Your task to perform on an android device: Open Android settings Image 0: 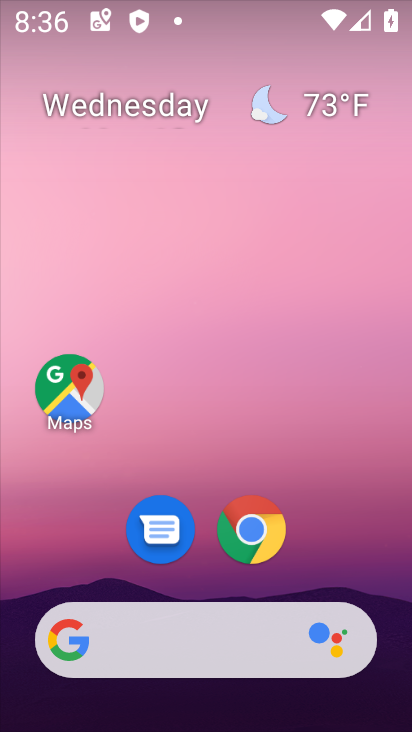
Step 0: drag from (358, 546) to (355, 246)
Your task to perform on an android device: Open Android settings Image 1: 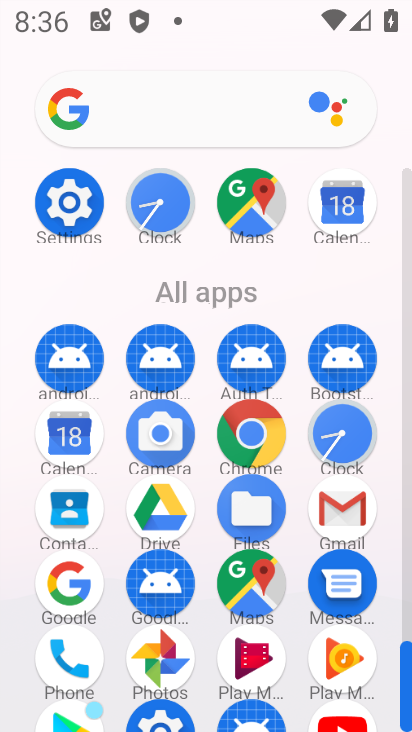
Step 1: click (87, 224)
Your task to perform on an android device: Open Android settings Image 2: 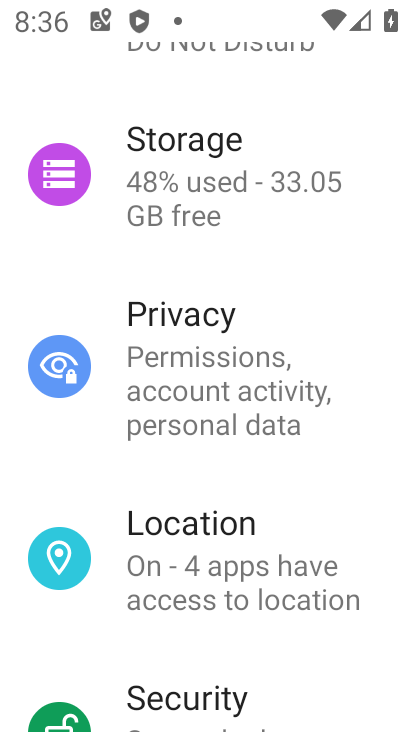
Step 2: drag from (351, 494) to (360, 376)
Your task to perform on an android device: Open Android settings Image 3: 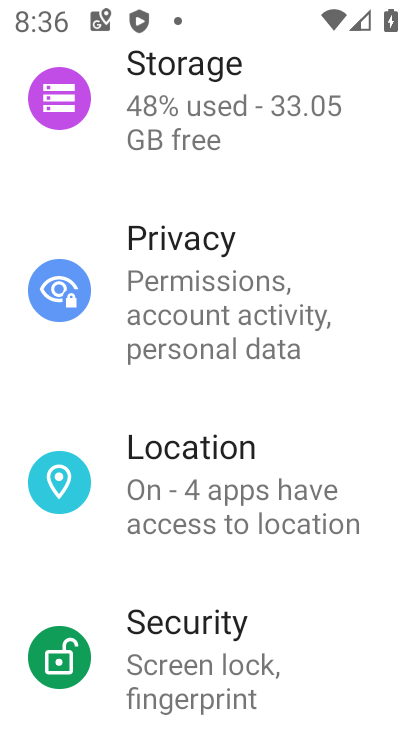
Step 3: drag from (358, 472) to (359, 339)
Your task to perform on an android device: Open Android settings Image 4: 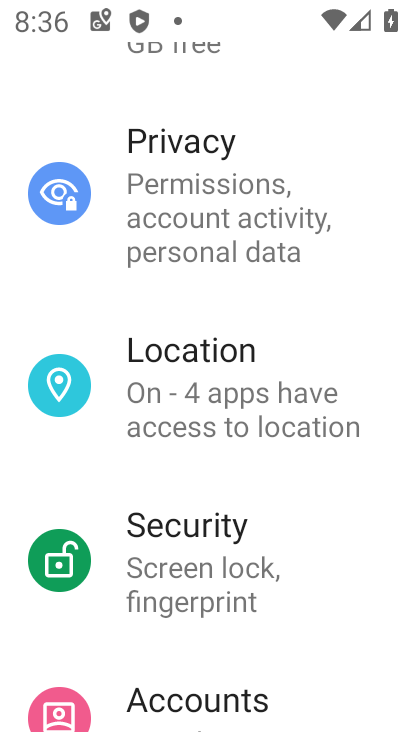
Step 4: drag from (369, 526) to (369, 402)
Your task to perform on an android device: Open Android settings Image 5: 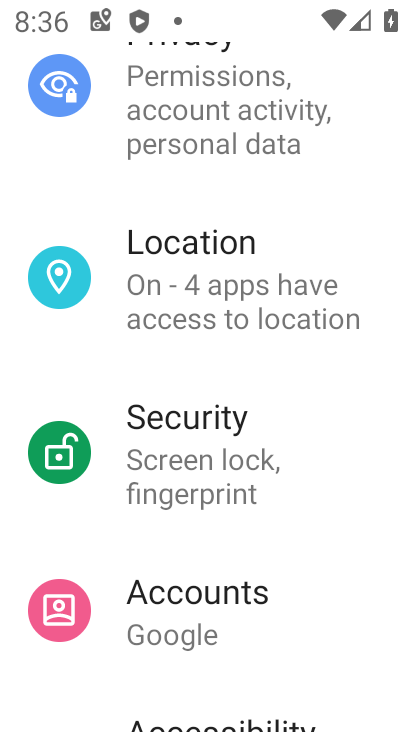
Step 5: drag from (355, 534) to (375, 335)
Your task to perform on an android device: Open Android settings Image 6: 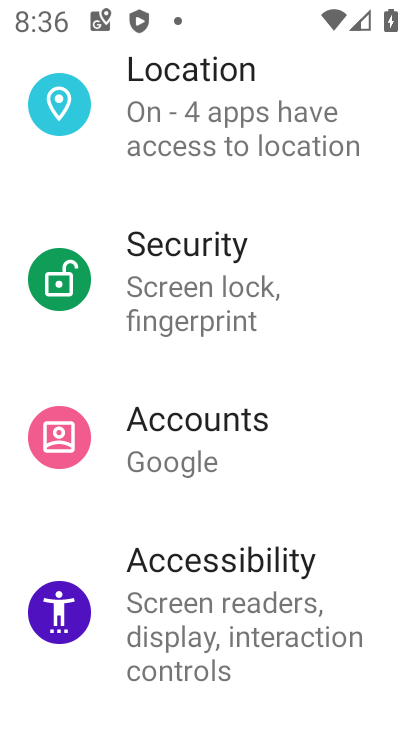
Step 6: drag from (344, 525) to (362, 400)
Your task to perform on an android device: Open Android settings Image 7: 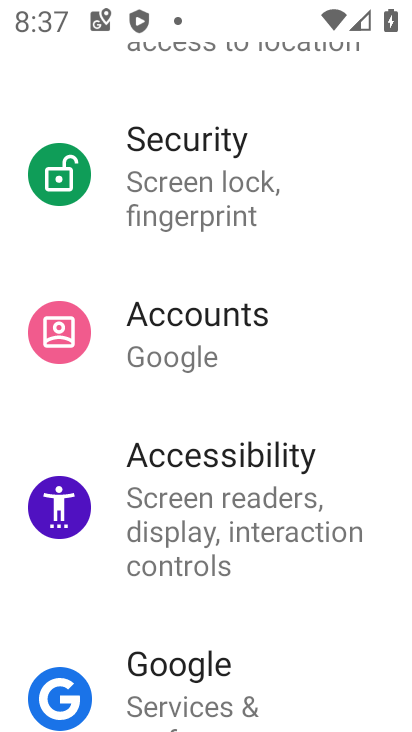
Step 7: drag from (355, 600) to (365, 382)
Your task to perform on an android device: Open Android settings Image 8: 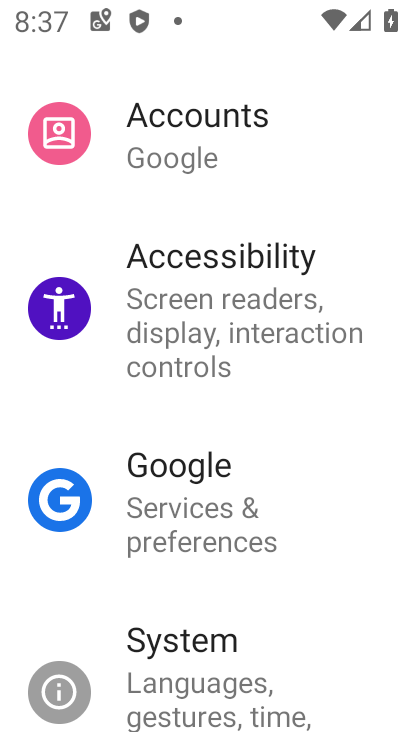
Step 8: drag from (325, 589) to (358, 405)
Your task to perform on an android device: Open Android settings Image 9: 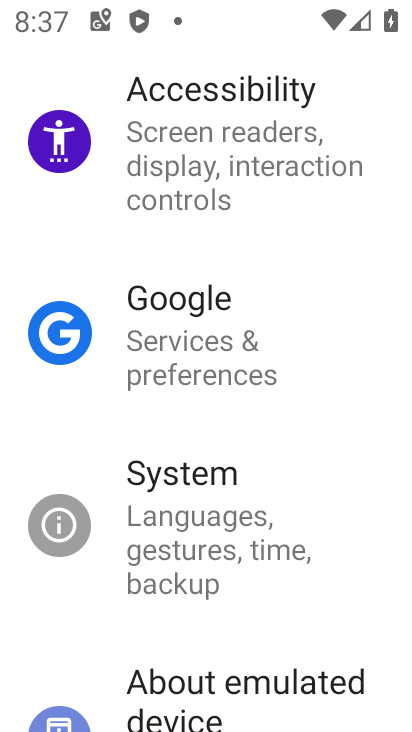
Step 9: drag from (344, 586) to (360, 438)
Your task to perform on an android device: Open Android settings Image 10: 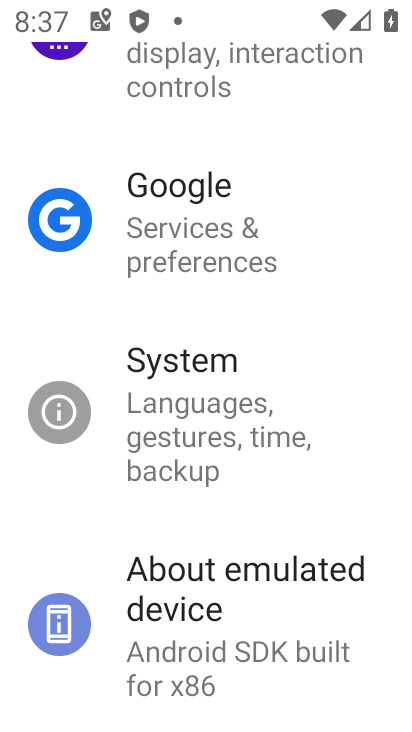
Step 10: click (247, 478)
Your task to perform on an android device: Open Android settings Image 11: 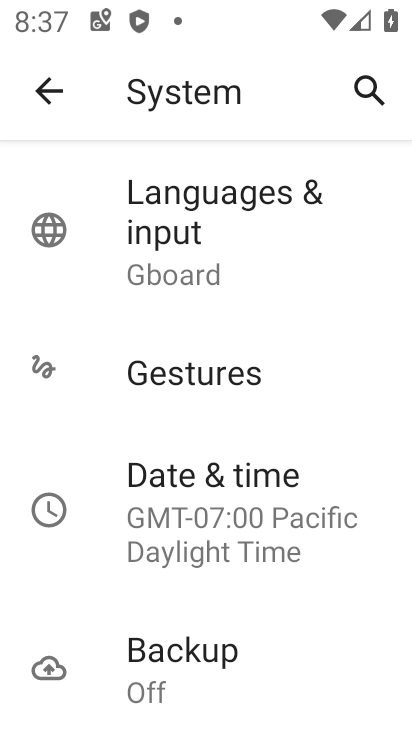
Step 11: drag from (281, 619) to (306, 499)
Your task to perform on an android device: Open Android settings Image 12: 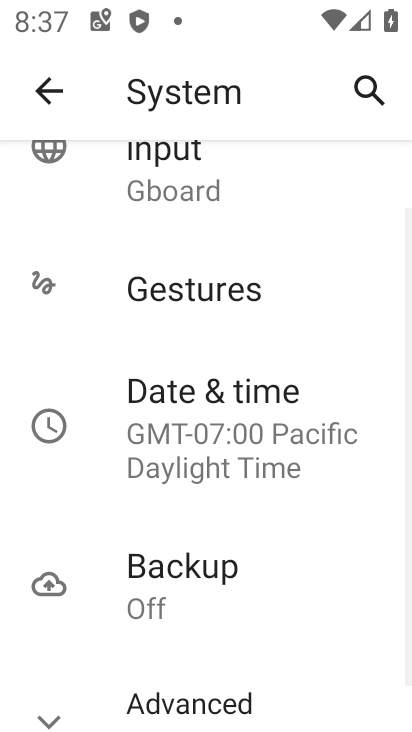
Step 12: drag from (304, 637) to (330, 469)
Your task to perform on an android device: Open Android settings Image 13: 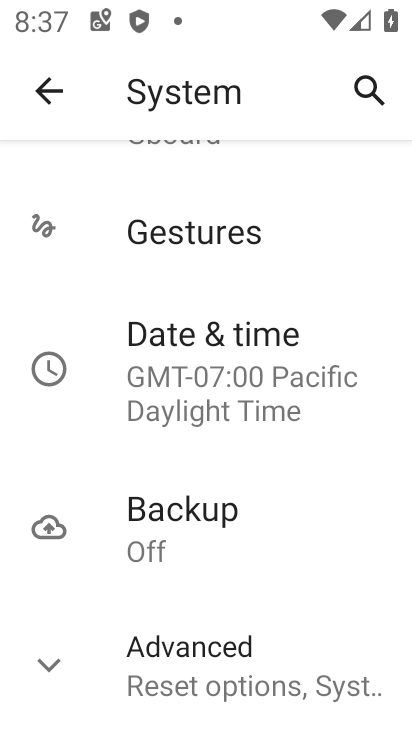
Step 13: drag from (331, 588) to (341, 476)
Your task to perform on an android device: Open Android settings Image 14: 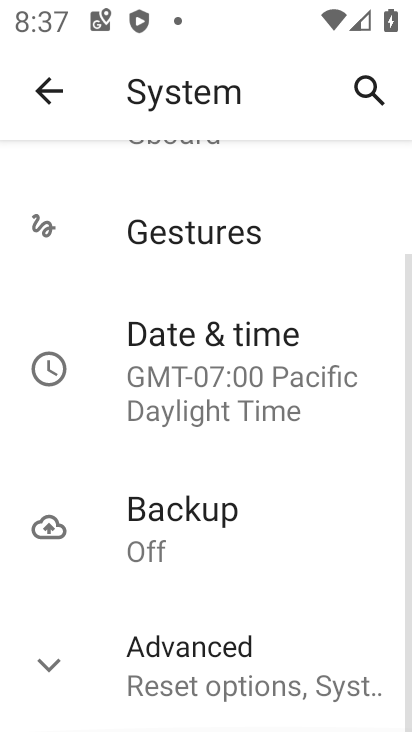
Step 14: click (257, 674)
Your task to perform on an android device: Open Android settings Image 15: 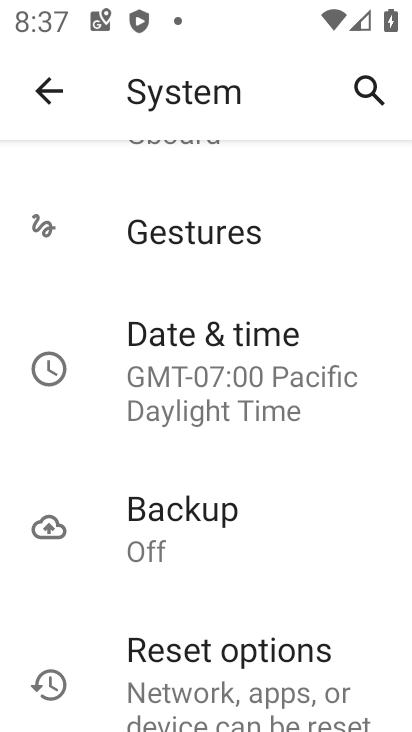
Step 15: task complete